Your task to perform on an android device: check battery use Image 0: 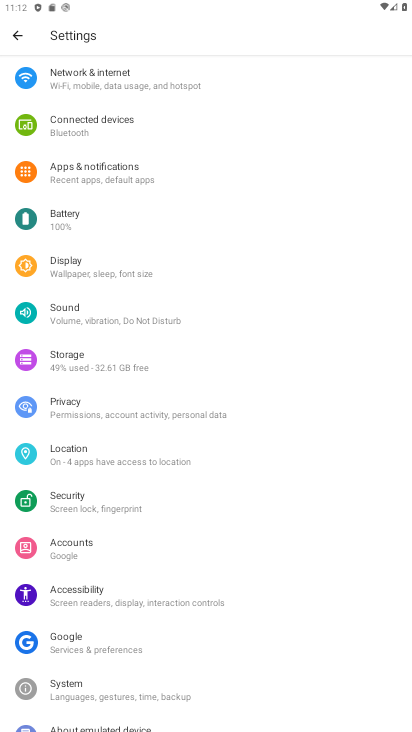
Step 0: click (53, 214)
Your task to perform on an android device: check battery use Image 1: 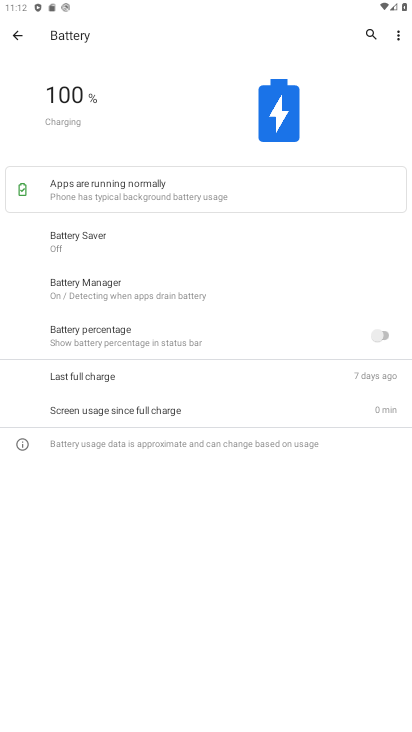
Step 1: task complete